Your task to perform on an android device: uninstall "Gmail" Image 0: 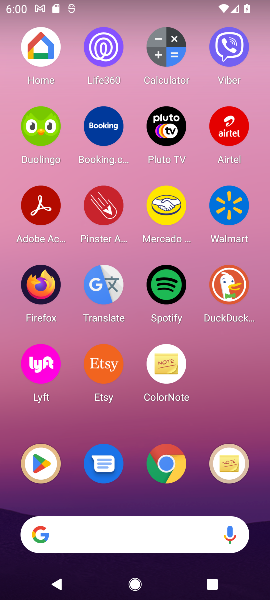
Step 0: press home button
Your task to perform on an android device: uninstall "Gmail" Image 1: 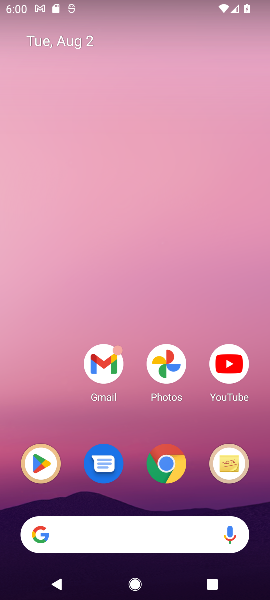
Step 1: click (45, 461)
Your task to perform on an android device: uninstall "Gmail" Image 2: 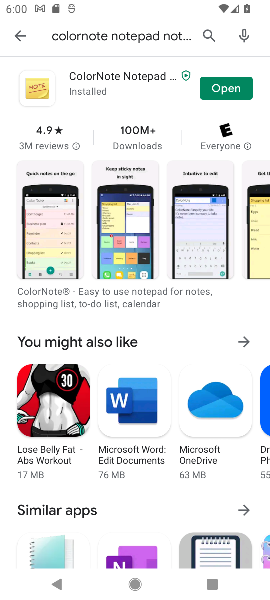
Step 2: click (207, 29)
Your task to perform on an android device: uninstall "Gmail" Image 3: 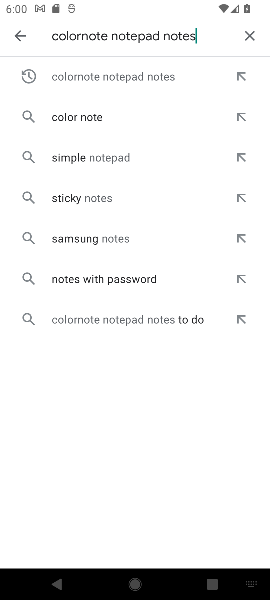
Step 3: click (248, 27)
Your task to perform on an android device: uninstall "Gmail" Image 4: 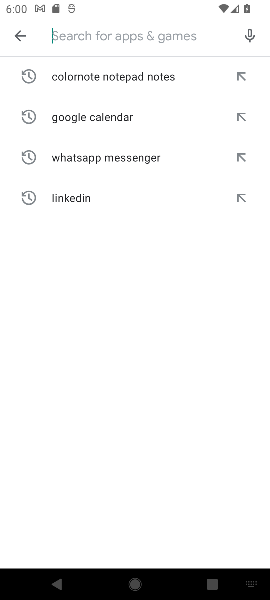
Step 4: type "Gmail"
Your task to perform on an android device: uninstall "Gmail" Image 5: 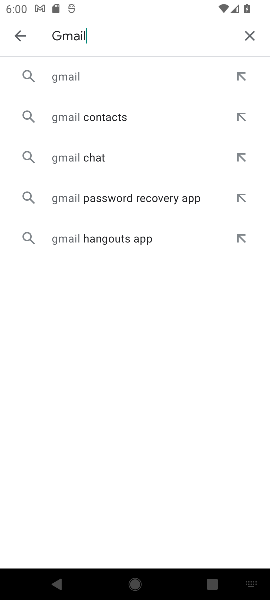
Step 5: click (54, 79)
Your task to perform on an android device: uninstall "Gmail" Image 6: 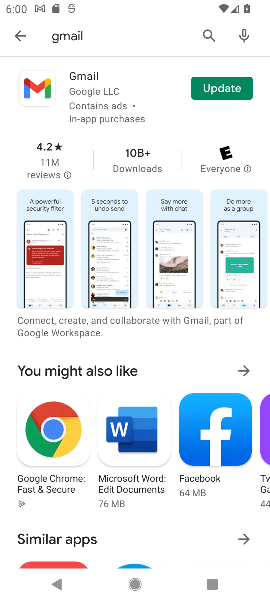
Step 6: click (85, 98)
Your task to perform on an android device: uninstall "Gmail" Image 7: 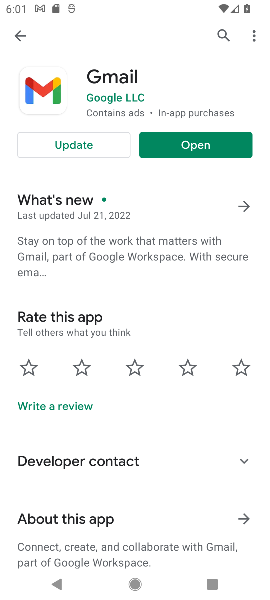
Step 7: task complete